Your task to perform on an android device: Open wifi settings Image 0: 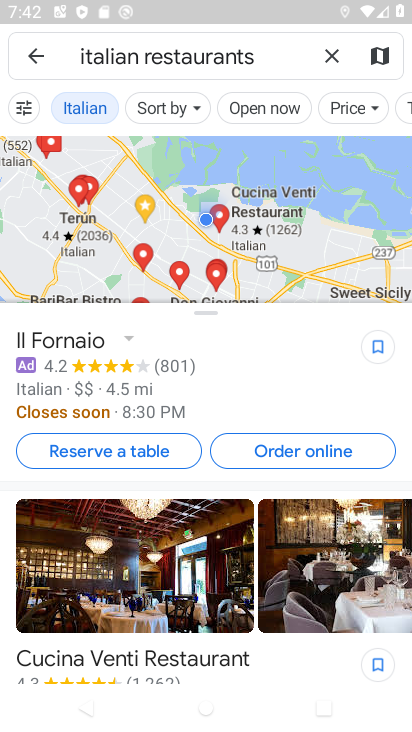
Step 0: press home button
Your task to perform on an android device: Open wifi settings Image 1: 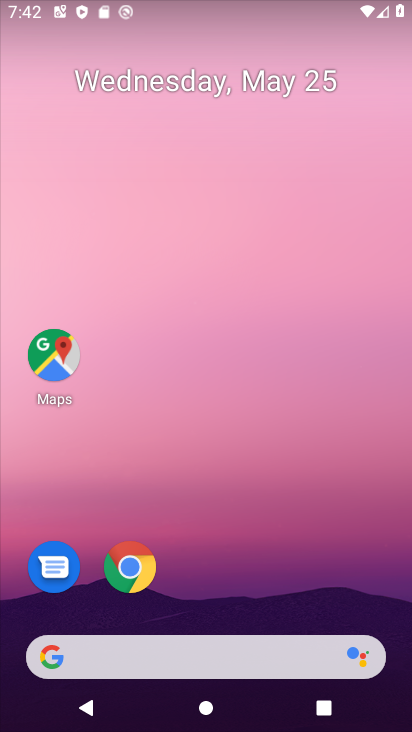
Step 1: drag from (269, 563) to (320, 69)
Your task to perform on an android device: Open wifi settings Image 2: 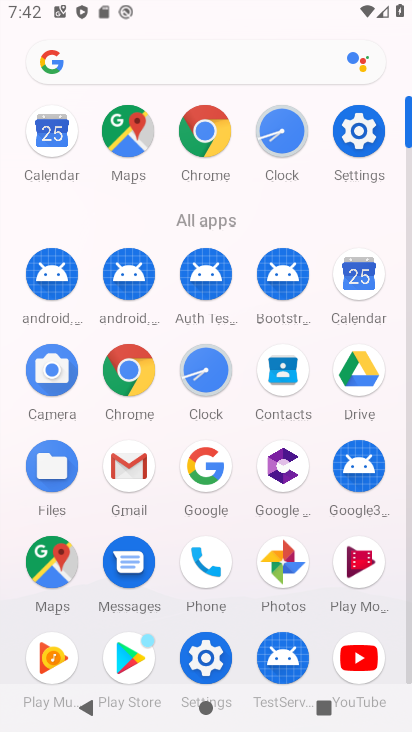
Step 2: click (366, 120)
Your task to perform on an android device: Open wifi settings Image 3: 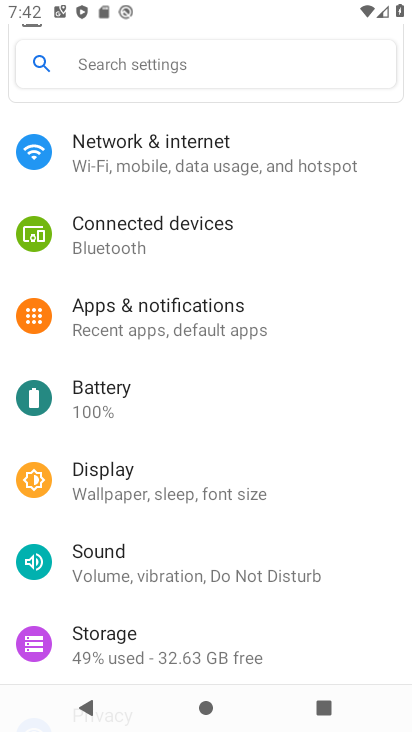
Step 3: click (245, 159)
Your task to perform on an android device: Open wifi settings Image 4: 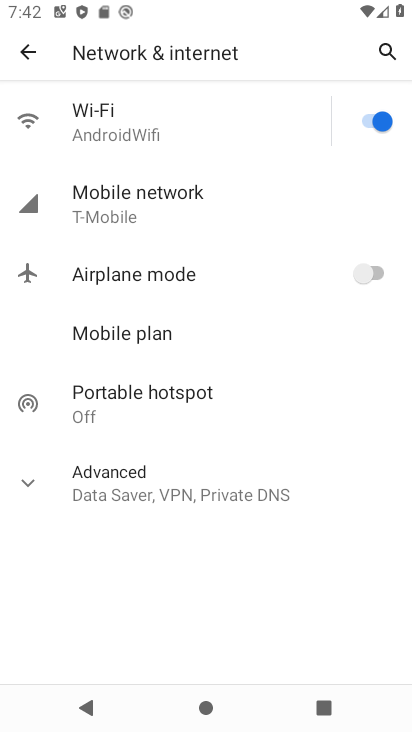
Step 4: click (184, 135)
Your task to perform on an android device: Open wifi settings Image 5: 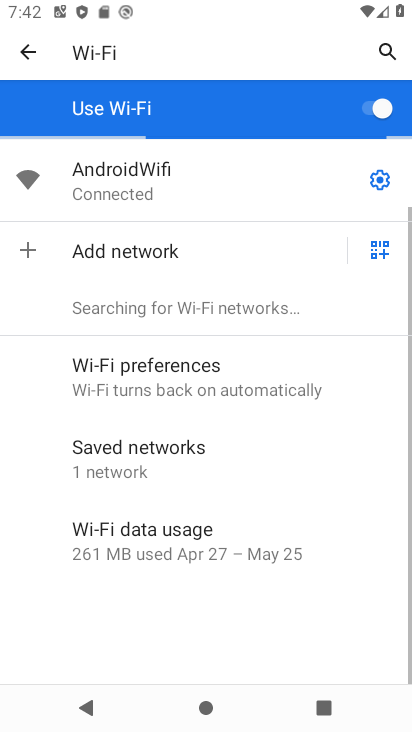
Step 5: task complete